Your task to perform on an android device: find which apps use the phone's location Image 0: 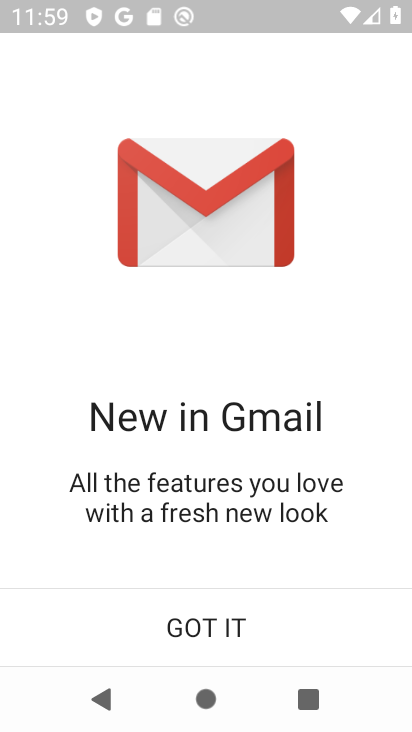
Step 0: press home button
Your task to perform on an android device: find which apps use the phone's location Image 1: 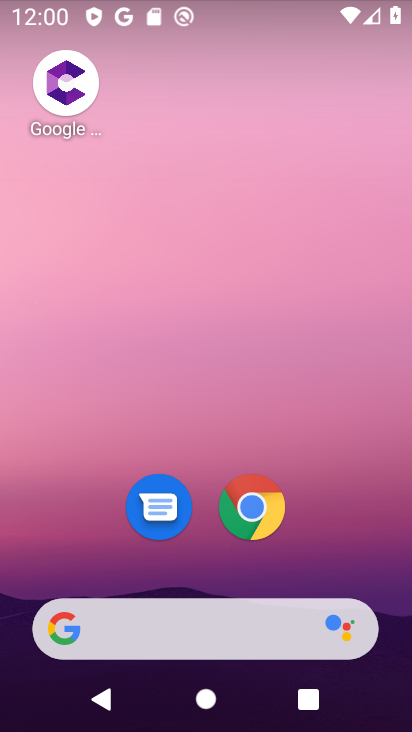
Step 1: drag from (382, 555) to (361, 77)
Your task to perform on an android device: find which apps use the phone's location Image 2: 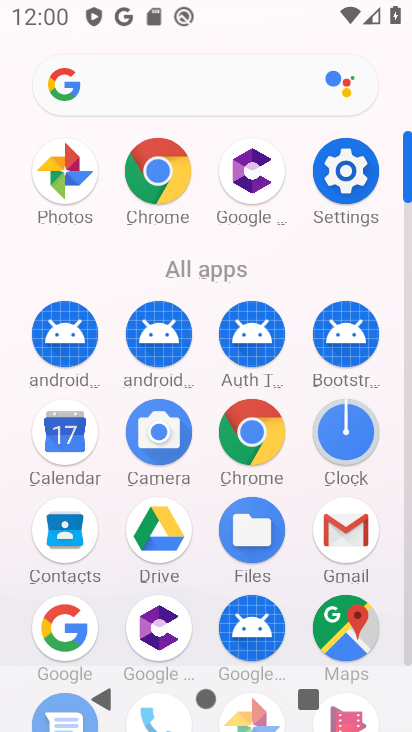
Step 2: click (354, 180)
Your task to perform on an android device: find which apps use the phone's location Image 3: 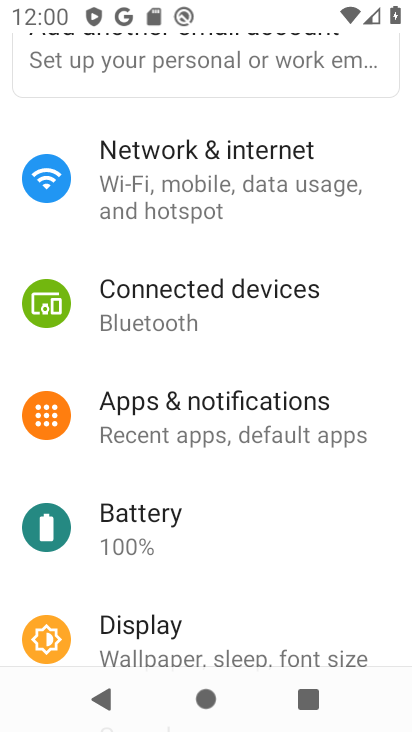
Step 3: drag from (342, 583) to (340, 381)
Your task to perform on an android device: find which apps use the phone's location Image 4: 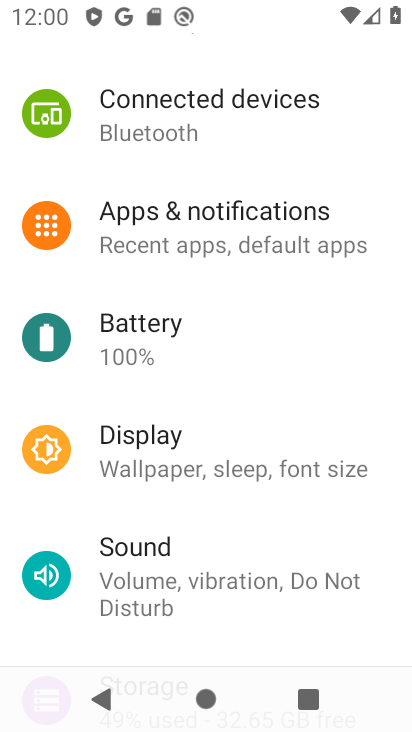
Step 4: drag from (345, 619) to (351, 444)
Your task to perform on an android device: find which apps use the phone's location Image 5: 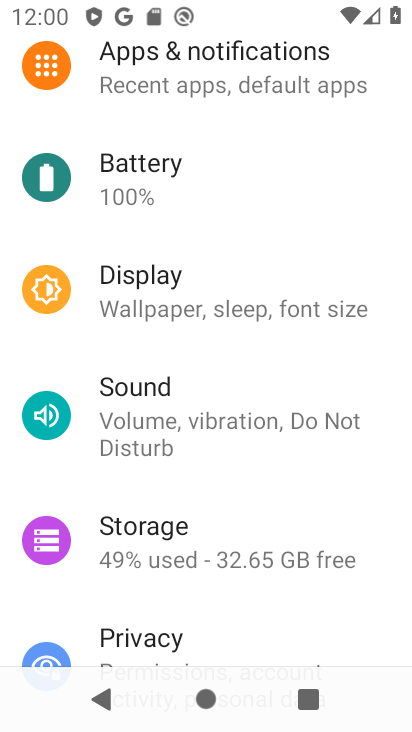
Step 5: drag from (336, 620) to (333, 436)
Your task to perform on an android device: find which apps use the phone's location Image 6: 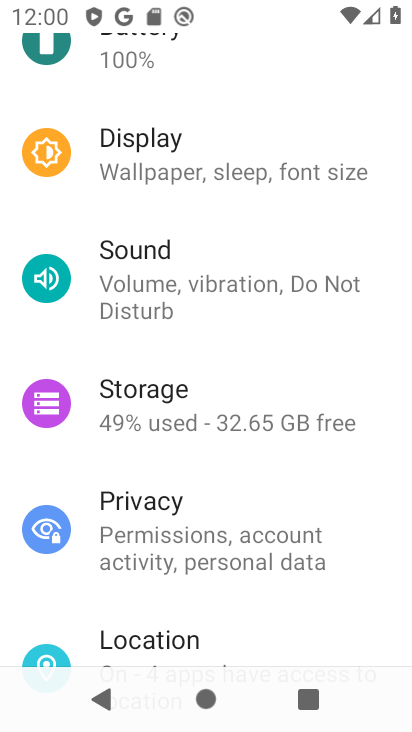
Step 6: drag from (299, 455) to (321, 234)
Your task to perform on an android device: find which apps use the phone's location Image 7: 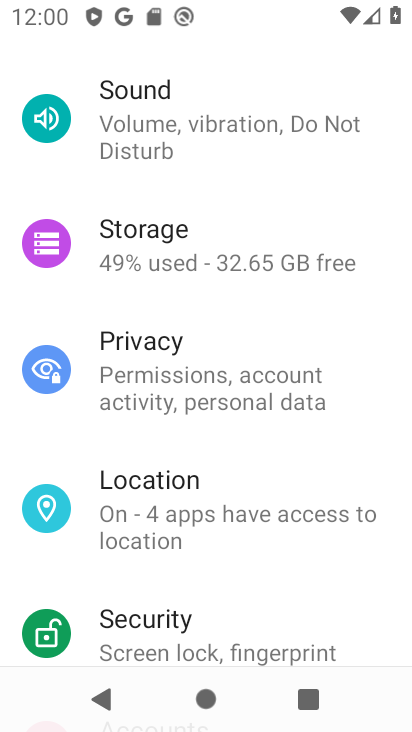
Step 7: click (254, 503)
Your task to perform on an android device: find which apps use the phone's location Image 8: 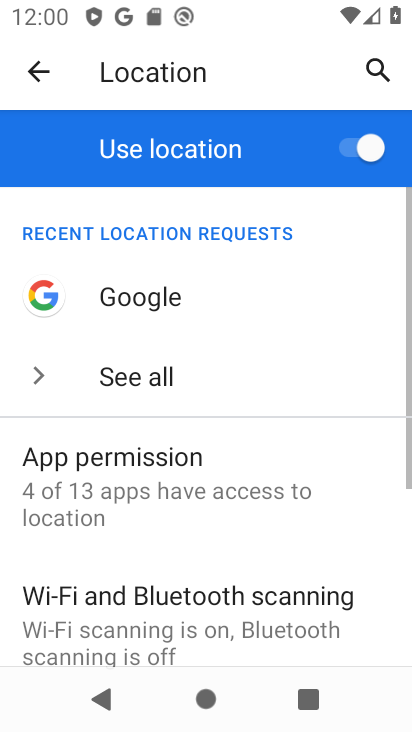
Step 8: click (193, 490)
Your task to perform on an android device: find which apps use the phone's location Image 9: 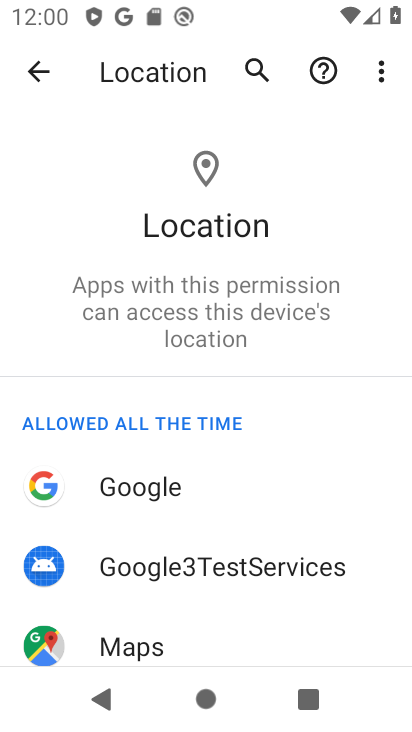
Step 9: drag from (225, 579) to (238, 434)
Your task to perform on an android device: find which apps use the phone's location Image 10: 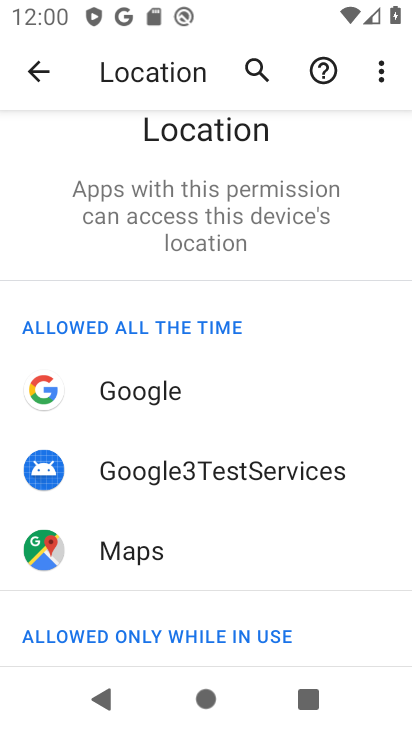
Step 10: drag from (250, 593) to (246, 345)
Your task to perform on an android device: find which apps use the phone's location Image 11: 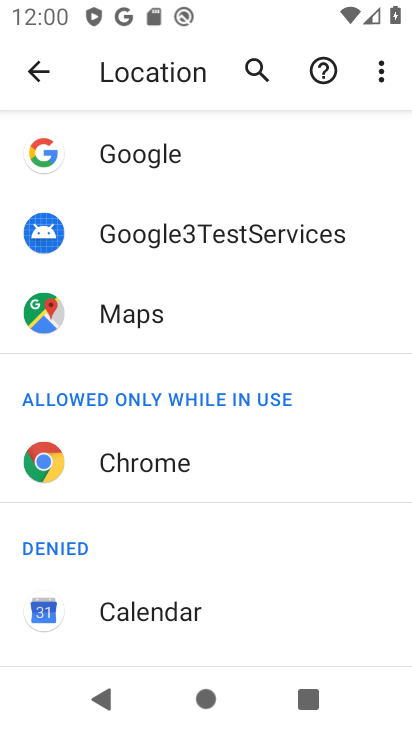
Step 11: drag from (262, 570) to (264, 400)
Your task to perform on an android device: find which apps use the phone's location Image 12: 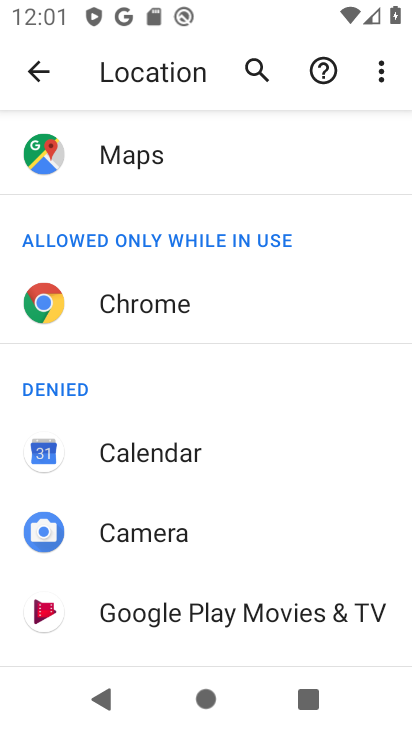
Step 12: drag from (323, 556) to (319, 395)
Your task to perform on an android device: find which apps use the phone's location Image 13: 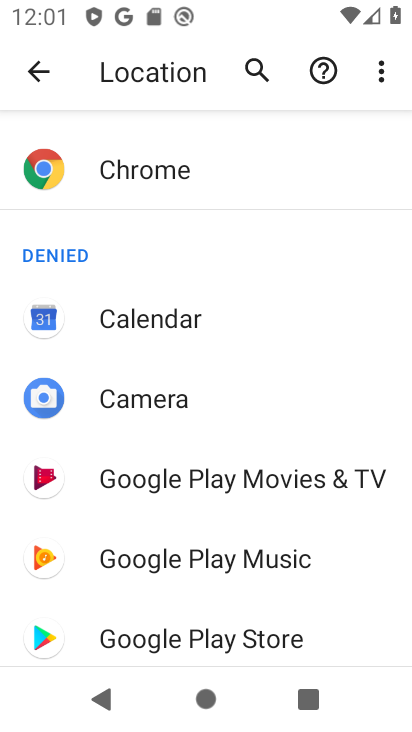
Step 13: drag from (329, 608) to (338, 398)
Your task to perform on an android device: find which apps use the phone's location Image 14: 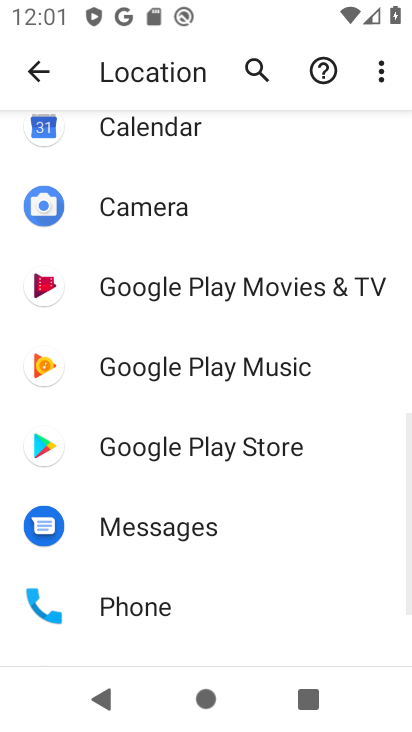
Step 14: drag from (317, 592) to (326, 396)
Your task to perform on an android device: find which apps use the phone's location Image 15: 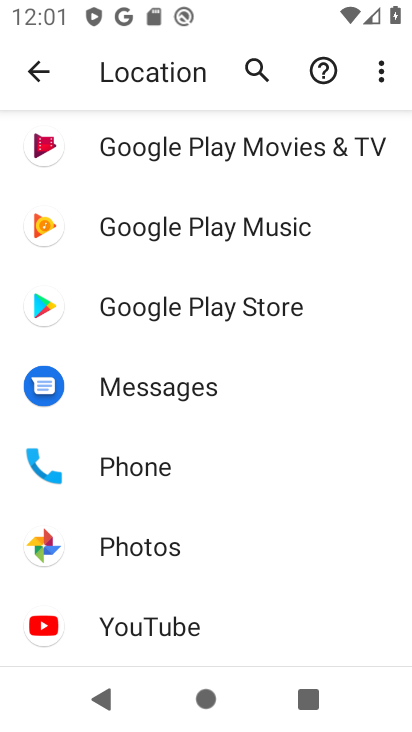
Step 15: click (178, 547)
Your task to perform on an android device: find which apps use the phone's location Image 16: 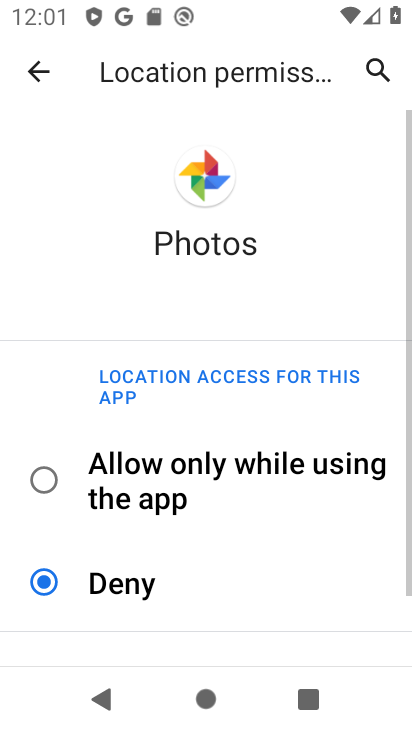
Step 16: click (123, 493)
Your task to perform on an android device: find which apps use the phone's location Image 17: 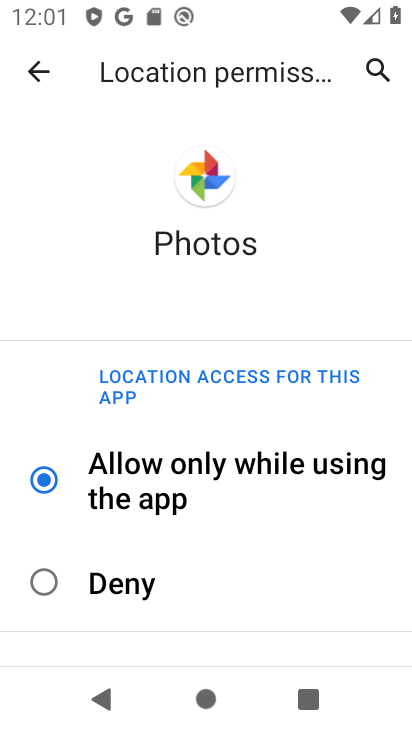
Step 17: task complete